Your task to perform on an android device: remove spam from my inbox in the gmail app Image 0: 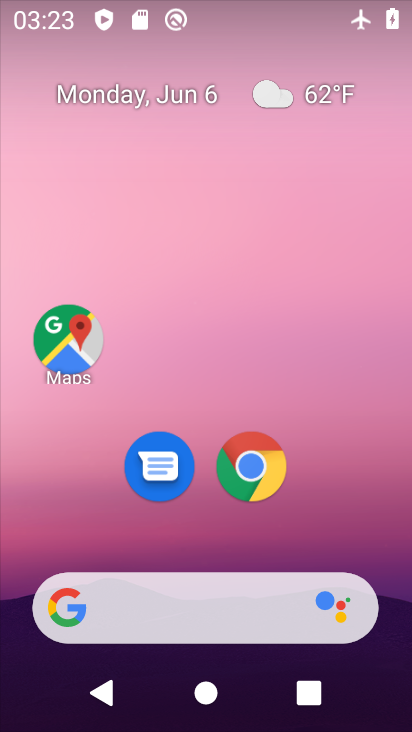
Step 0: drag from (335, 416) to (301, 72)
Your task to perform on an android device: remove spam from my inbox in the gmail app Image 1: 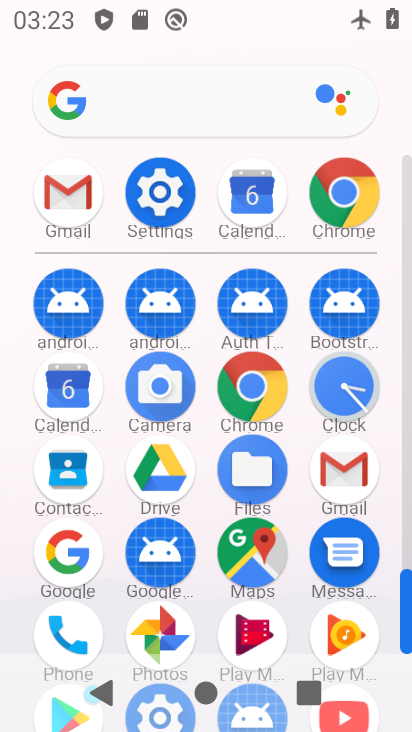
Step 1: click (68, 192)
Your task to perform on an android device: remove spam from my inbox in the gmail app Image 2: 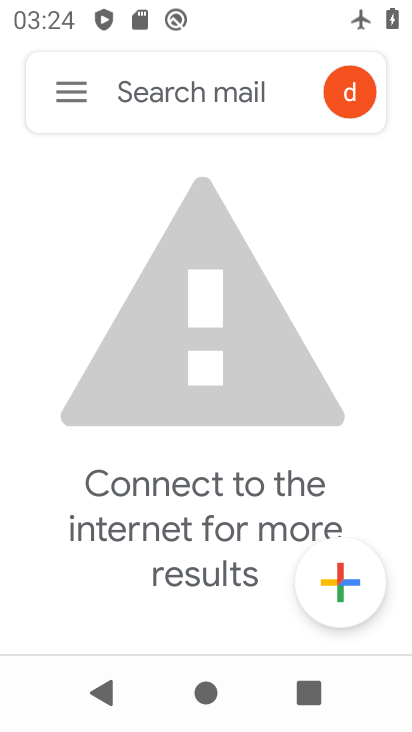
Step 2: task complete